Your task to perform on an android device: open the mobile data screen to see how much data has been used Image 0: 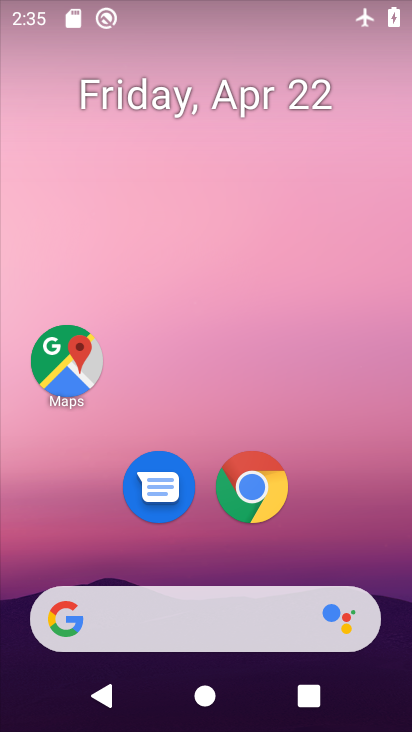
Step 0: press home button
Your task to perform on an android device: open the mobile data screen to see how much data has been used Image 1: 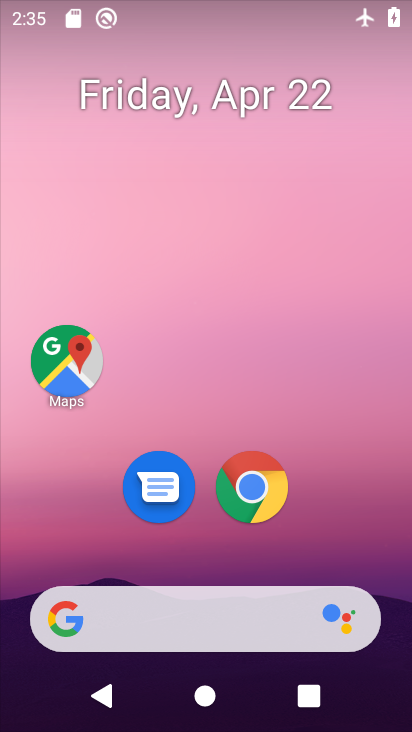
Step 1: drag from (294, 565) to (248, 220)
Your task to perform on an android device: open the mobile data screen to see how much data has been used Image 2: 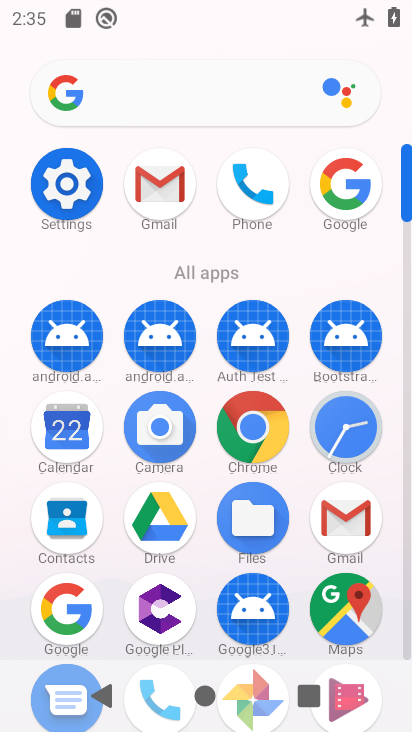
Step 2: click (74, 200)
Your task to perform on an android device: open the mobile data screen to see how much data has been used Image 3: 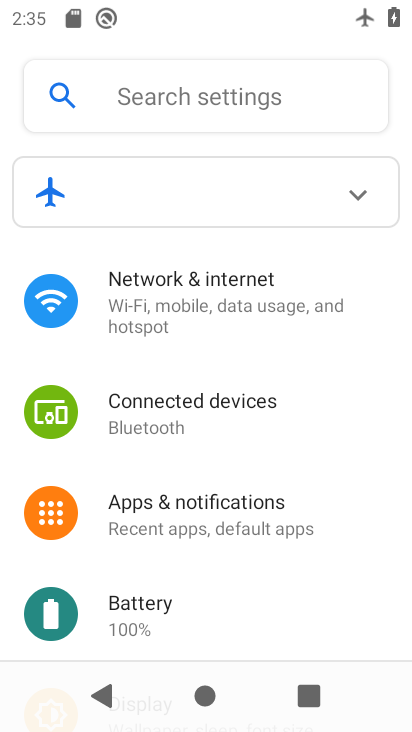
Step 3: click (146, 321)
Your task to perform on an android device: open the mobile data screen to see how much data has been used Image 4: 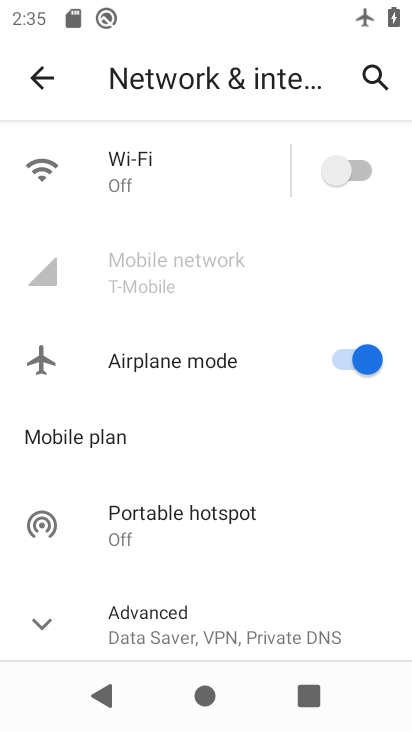
Step 4: task complete